Your task to perform on an android device: delete browsing data in the chrome app Image 0: 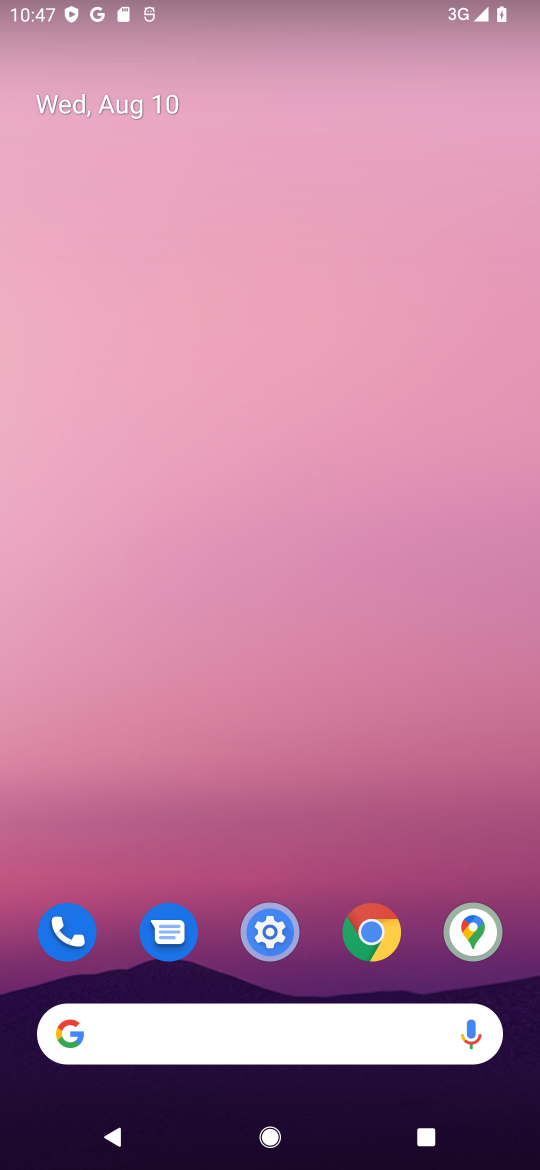
Step 0: click (371, 938)
Your task to perform on an android device: delete browsing data in the chrome app Image 1: 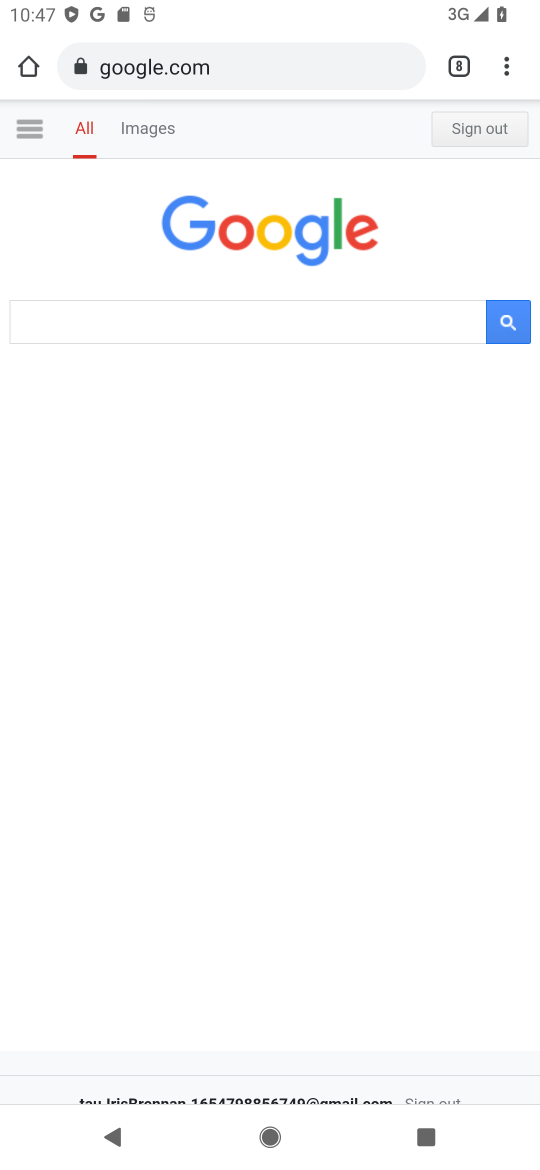
Step 1: click (507, 64)
Your task to perform on an android device: delete browsing data in the chrome app Image 2: 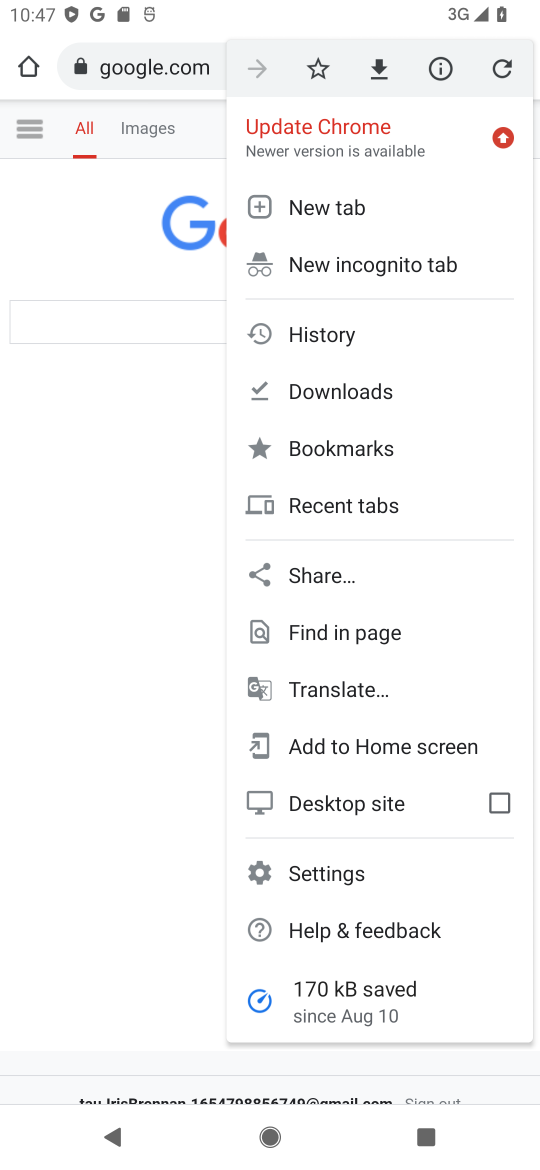
Step 2: click (306, 332)
Your task to perform on an android device: delete browsing data in the chrome app Image 3: 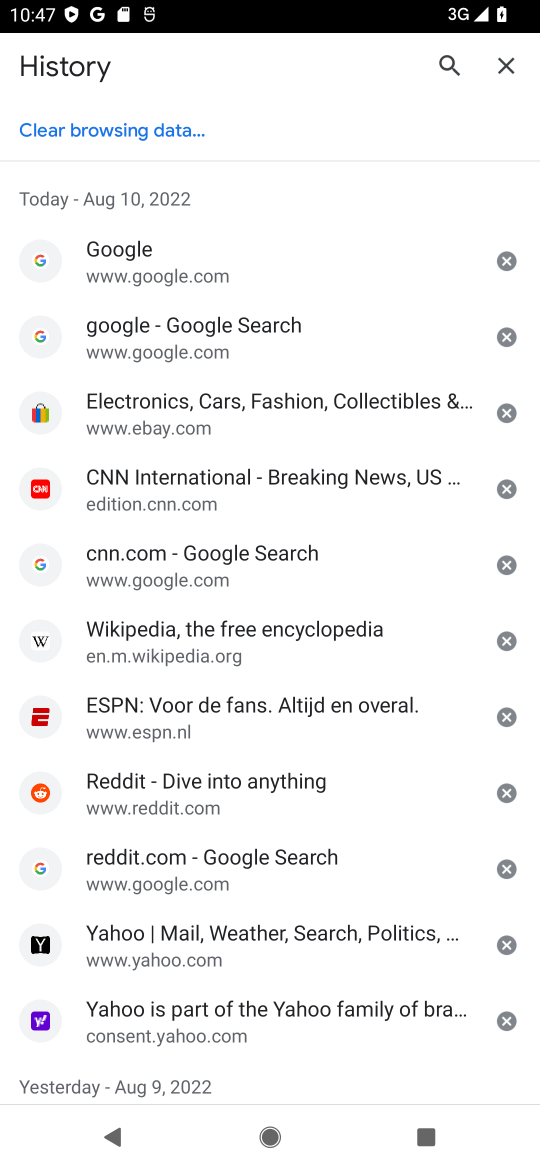
Step 3: click (94, 127)
Your task to perform on an android device: delete browsing data in the chrome app Image 4: 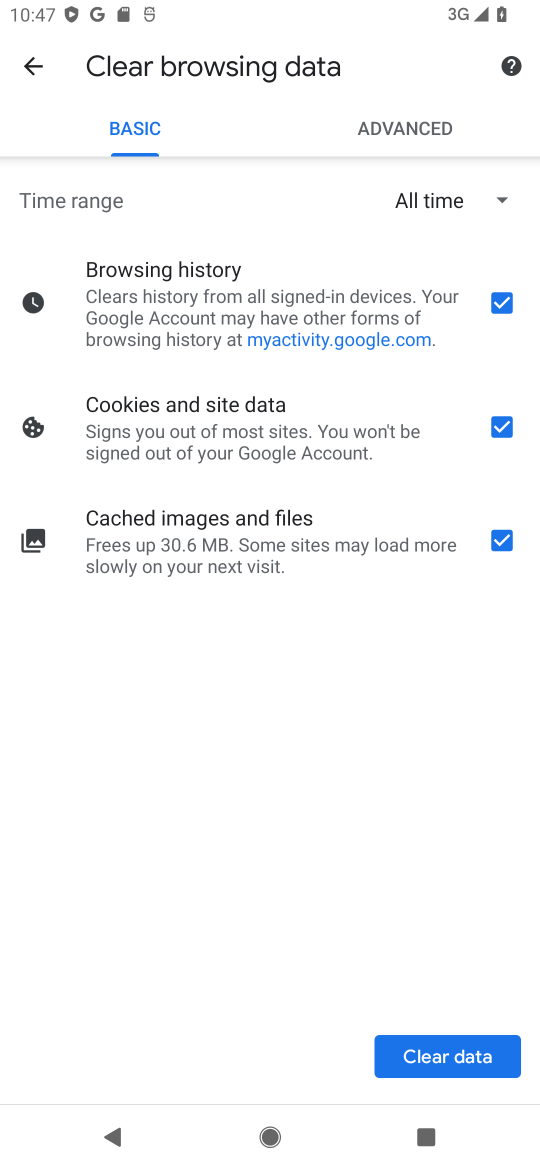
Step 4: click (500, 420)
Your task to perform on an android device: delete browsing data in the chrome app Image 5: 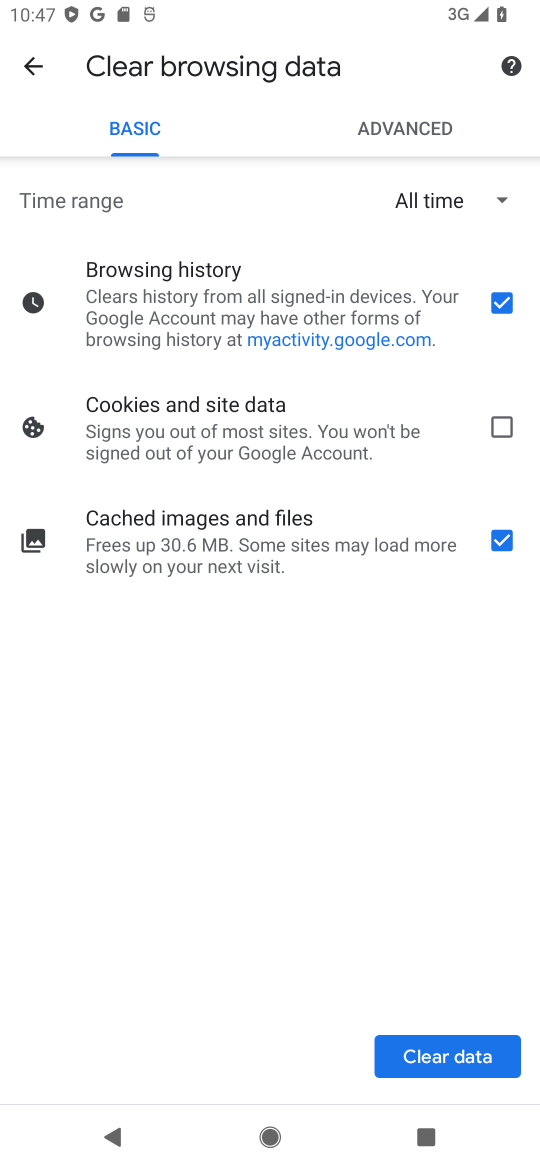
Step 5: click (497, 540)
Your task to perform on an android device: delete browsing data in the chrome app Image 6: 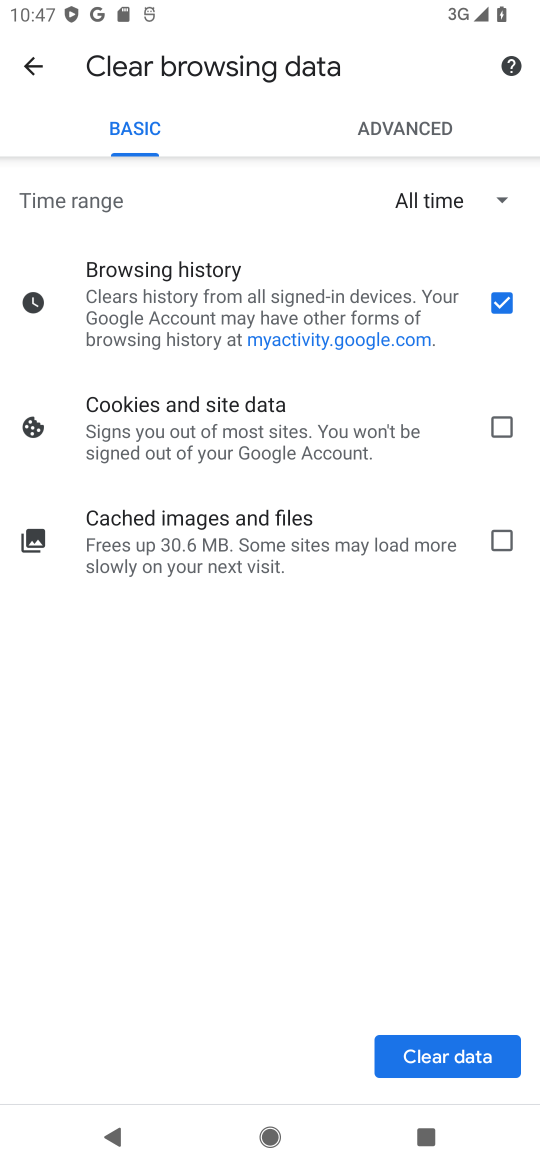
Step 6: click (466, 1047)
Your task to perform on an android device: delete browsing data in the chrome app Image 7: 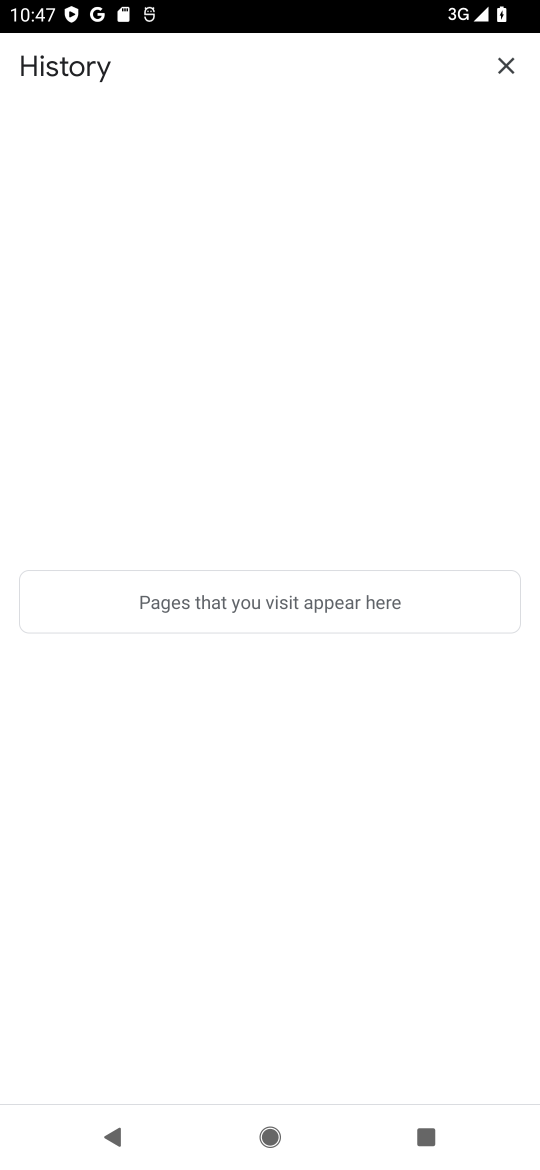
Step 7: task complete